Your task to perform on an android device: Add jbl charge 4 to the cart on walmart.com, then select checkout. Image 0: 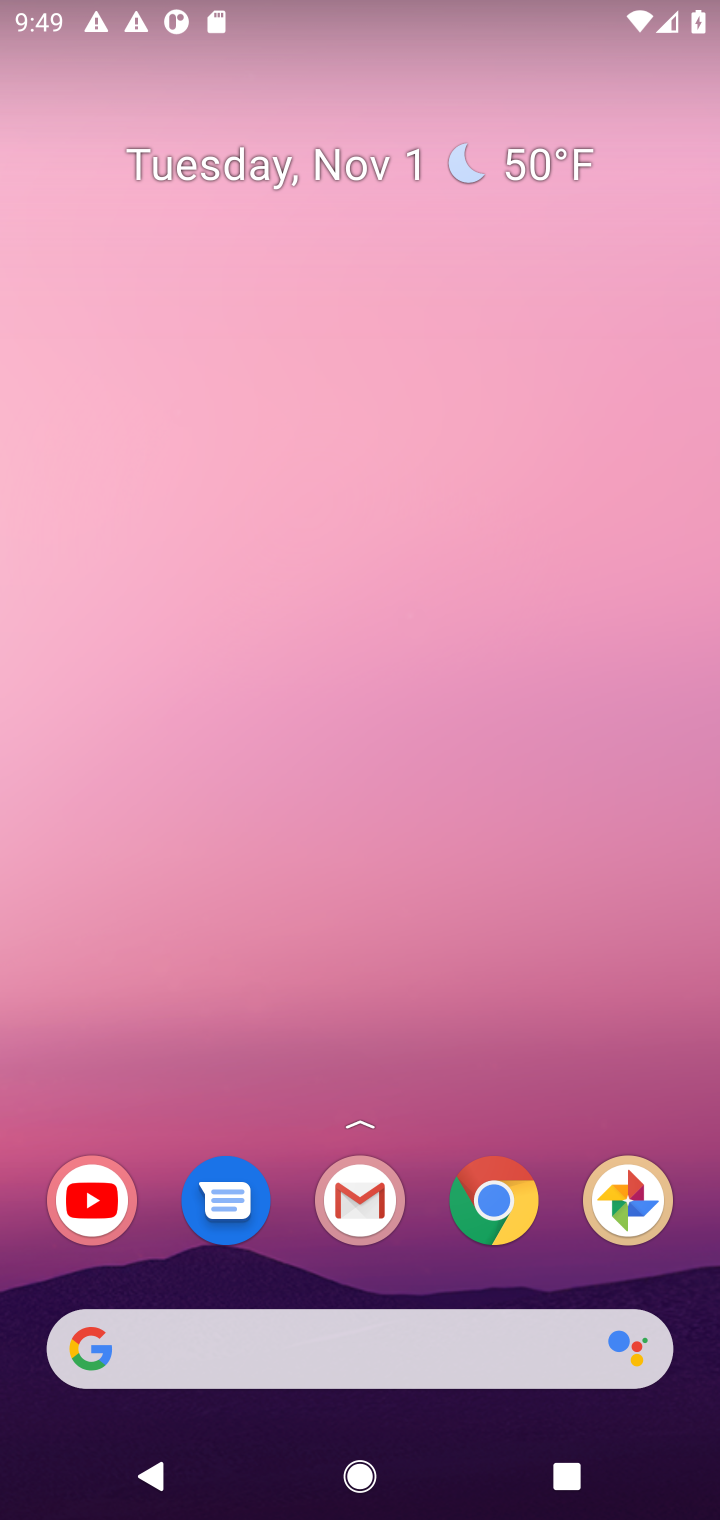
Step 0: click (408, 1329)
Your task to perform on an android device: Add jbl charge 4 to the cart on walmart.com, then select checkout. Image 1: 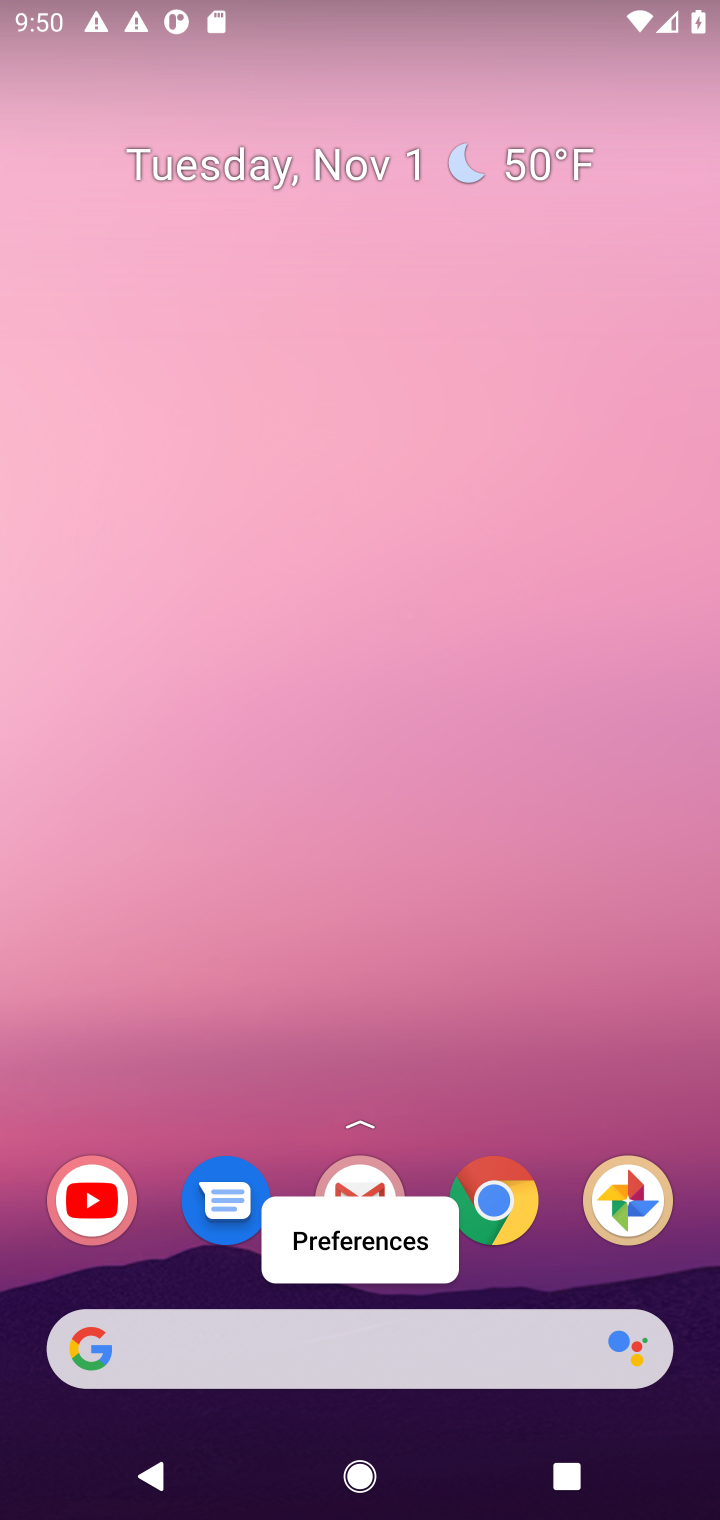
Step 1: click (418, 1363)
Your task to perform on an android device: Add jbl charge 4 to the cart on walmart.com, then select checkout. Image 2: 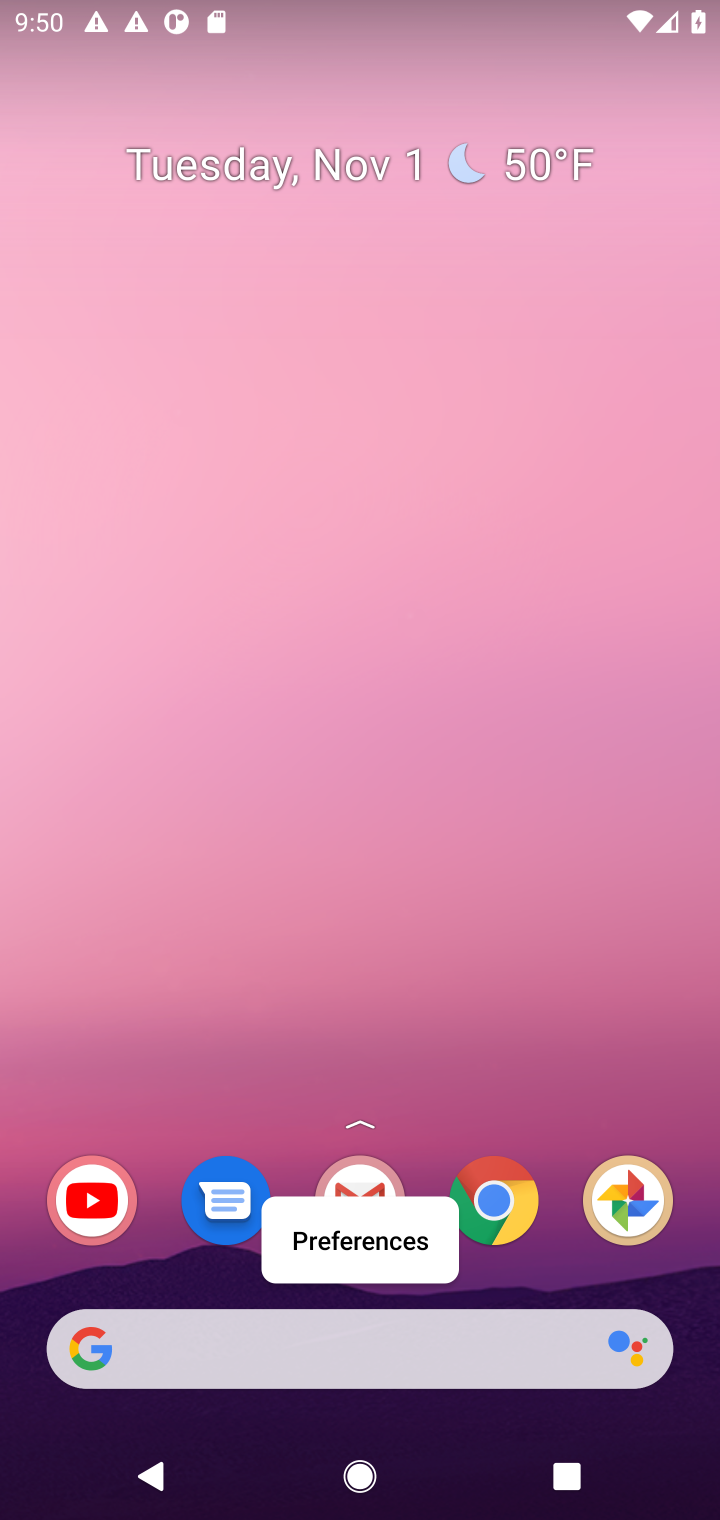
Step 2: click (396, 1354)
Your task to perform on an android device: Add jbl charge 4 to the cart on walmart.com, then select checkout. Image 3: 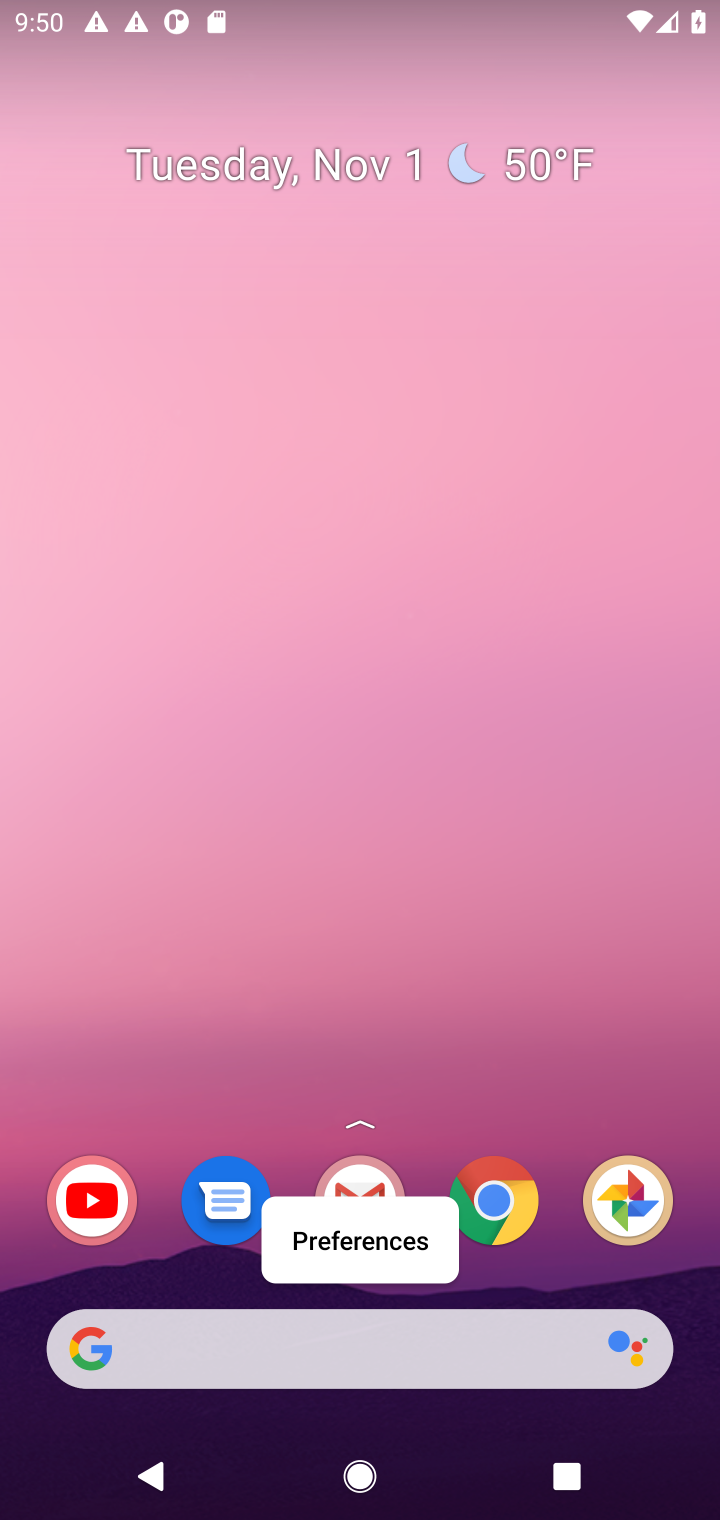
Step 3: click (284, 1343)
Your task to perform on an android device: Add jbl charge 4 to the cart on walmart.com, then select checkout. Image 4: 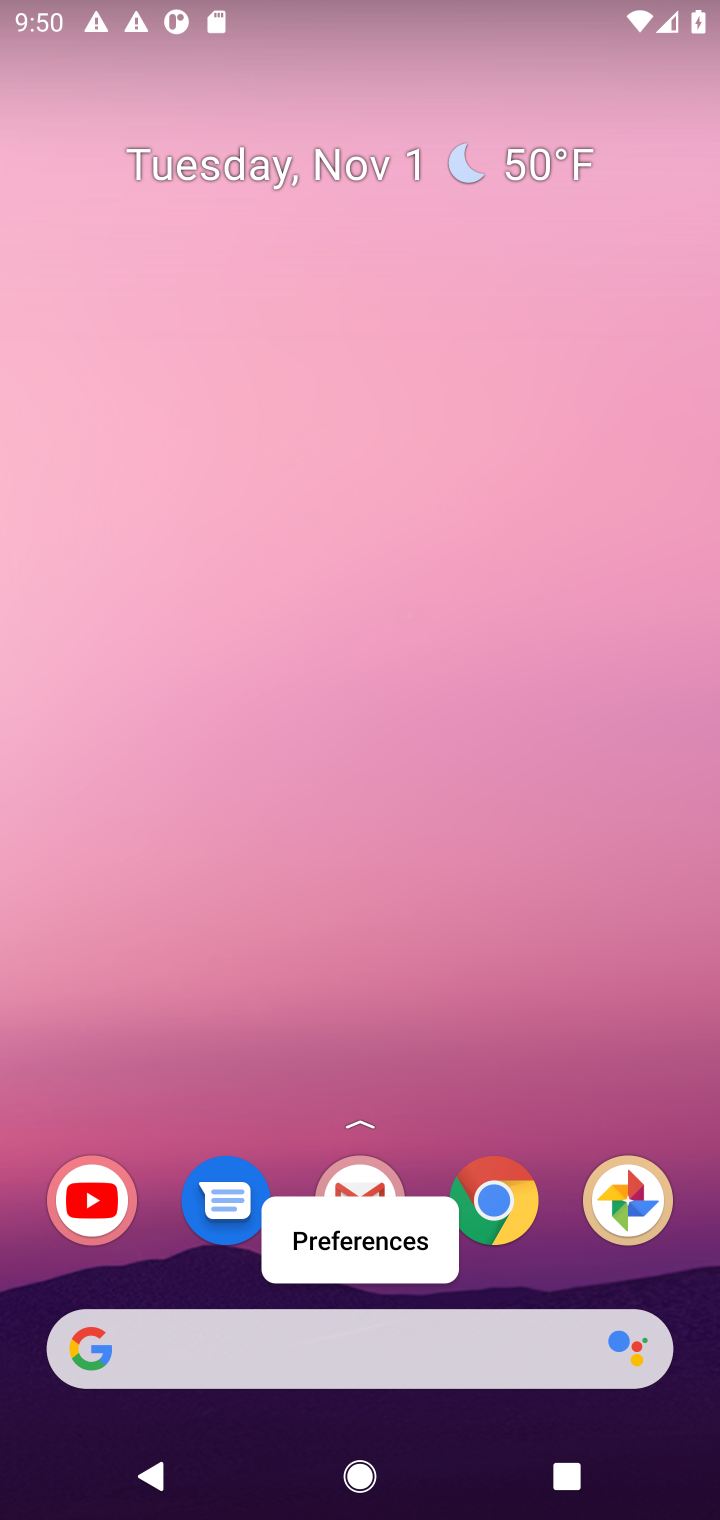
Step 4: click (276, 1333)
Your task to perform on an android device: Add jbl charge 4 to the cart on walmart.com, then select checkout. Image 5: 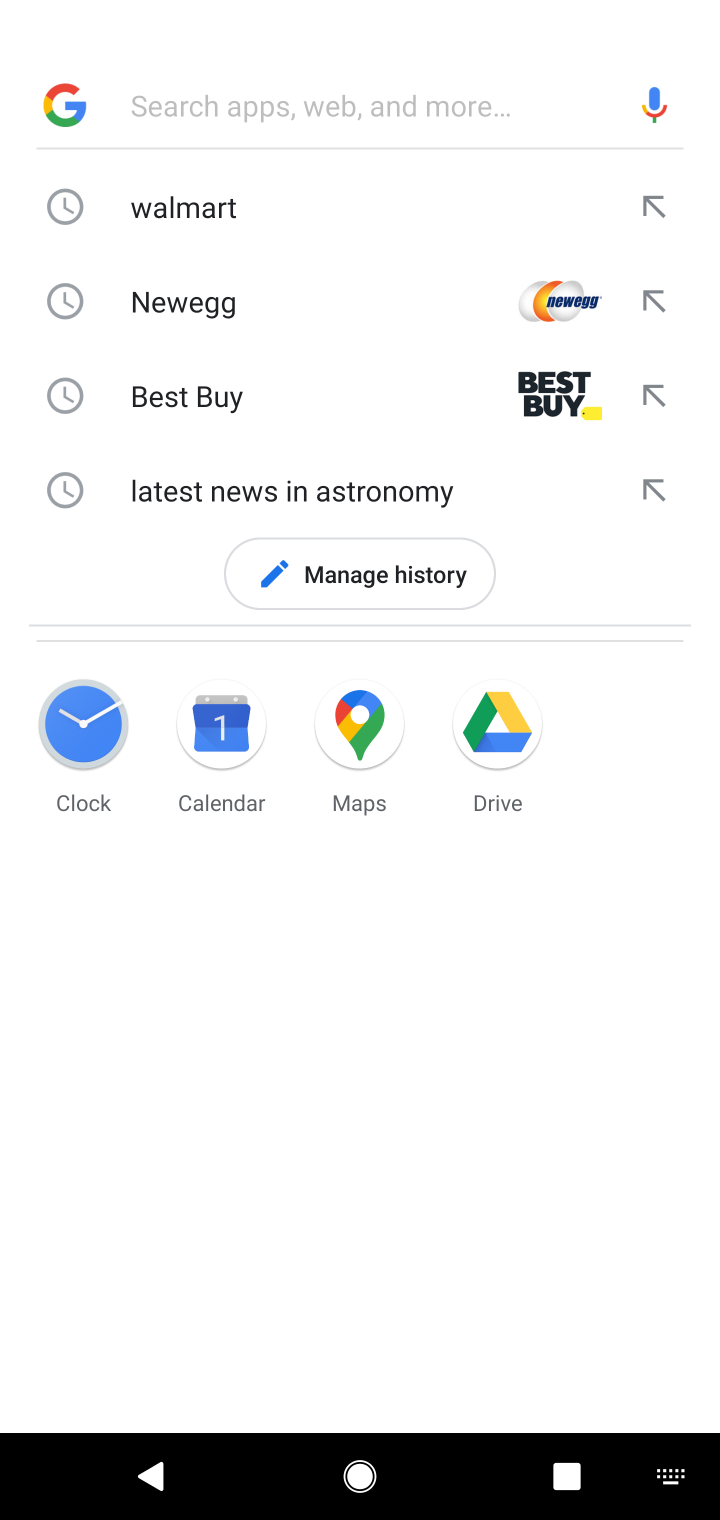
Step 5: type "walmart.com"
Your task to perform on an android device: Add jbl charge 4 to the cart on walmart.com, then select checkout. Image 6: 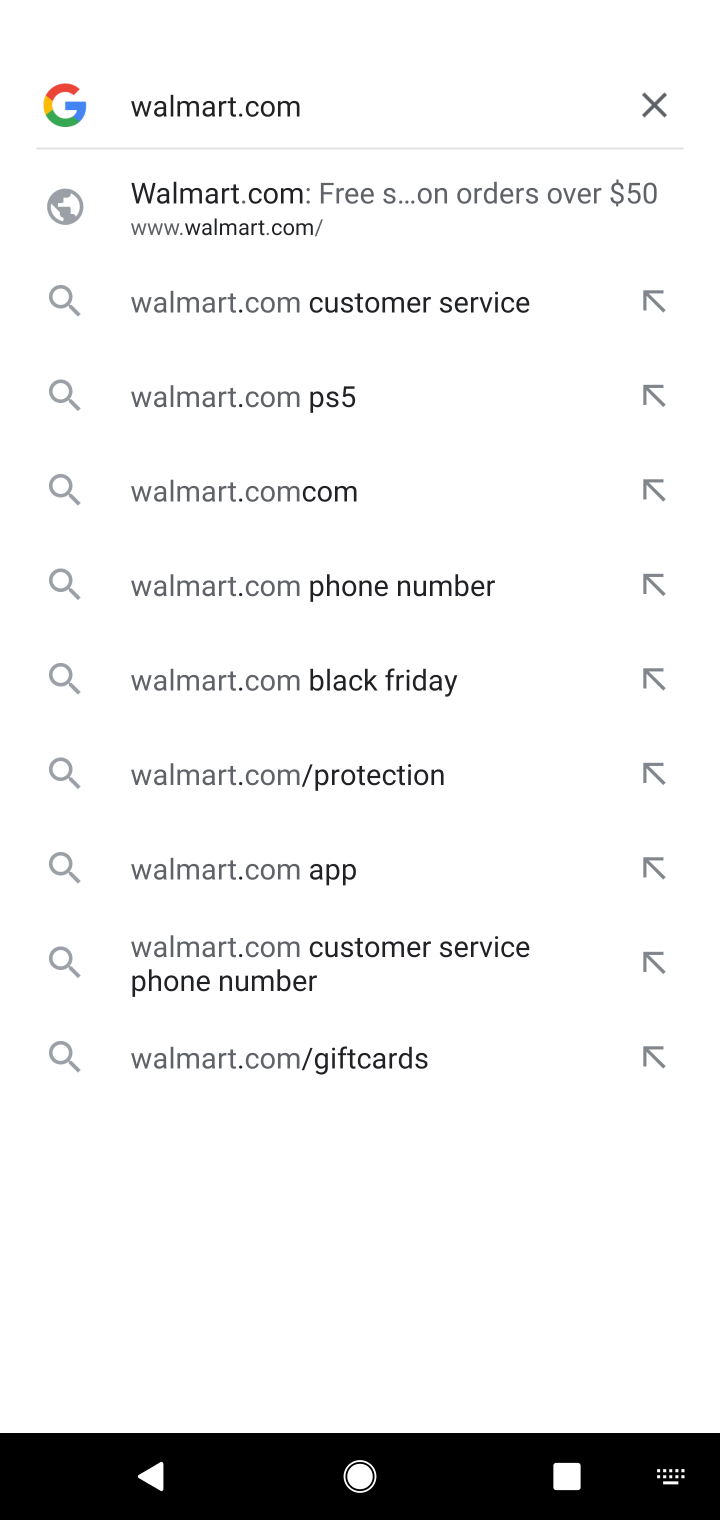
Step 6: click (199, 210)
Your task to perform on an android device: Add jbl charge 4 to the cart on walmart.com, then select checkout. Image 7: 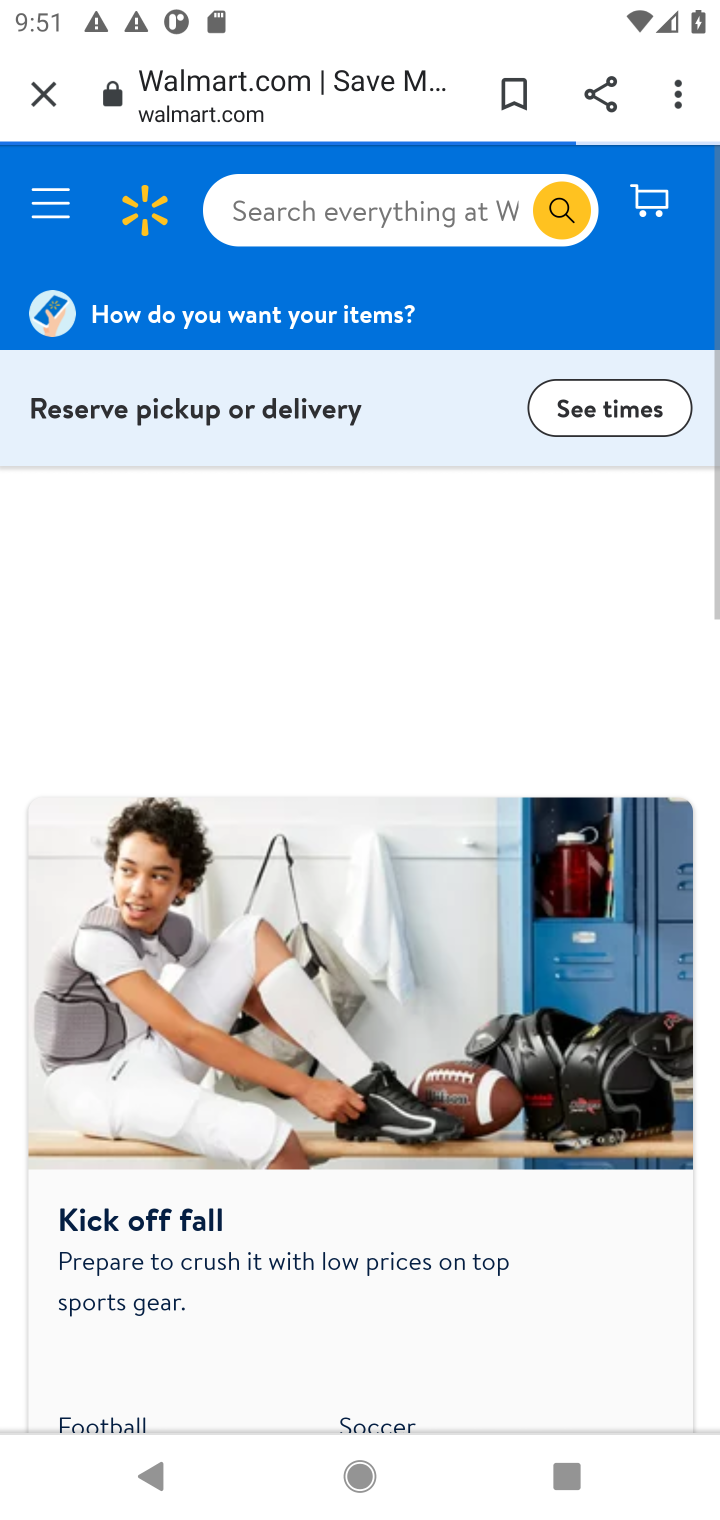
Step 7: click (279, 197)
Your task to perform on an android device: Add jbl charge 4 to the cart on walmart.com, then select checkout. Image 8: 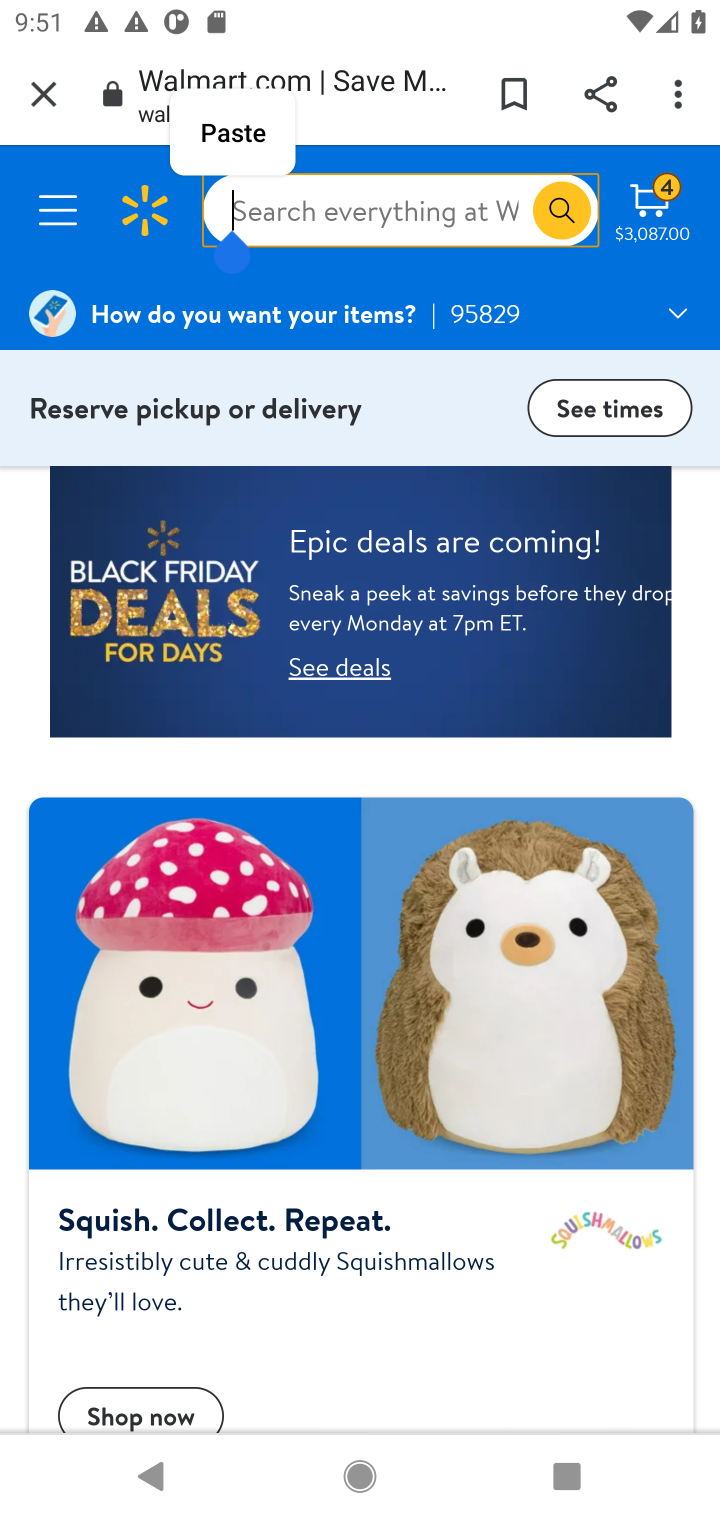
Step 8: type "jbl charge 4"
Your task to perform on an android device: Add jbl charge 4 to the cart on walmart.com, then select checkout. Image 9: 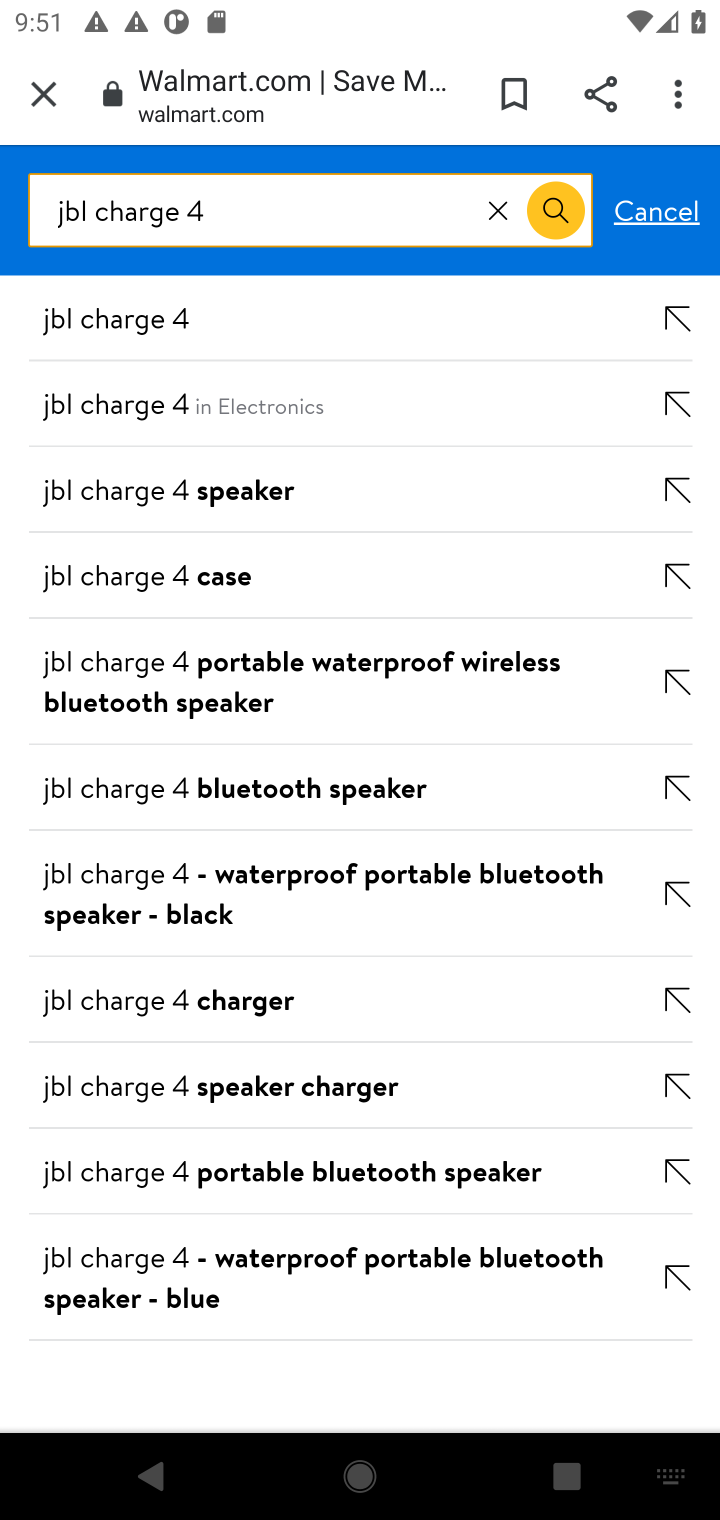
Step 9: click (172, 295)
Your task to perform on an android device: Add jbl charge 4 to the cart on walmart.com, then select checkout. Image 10: 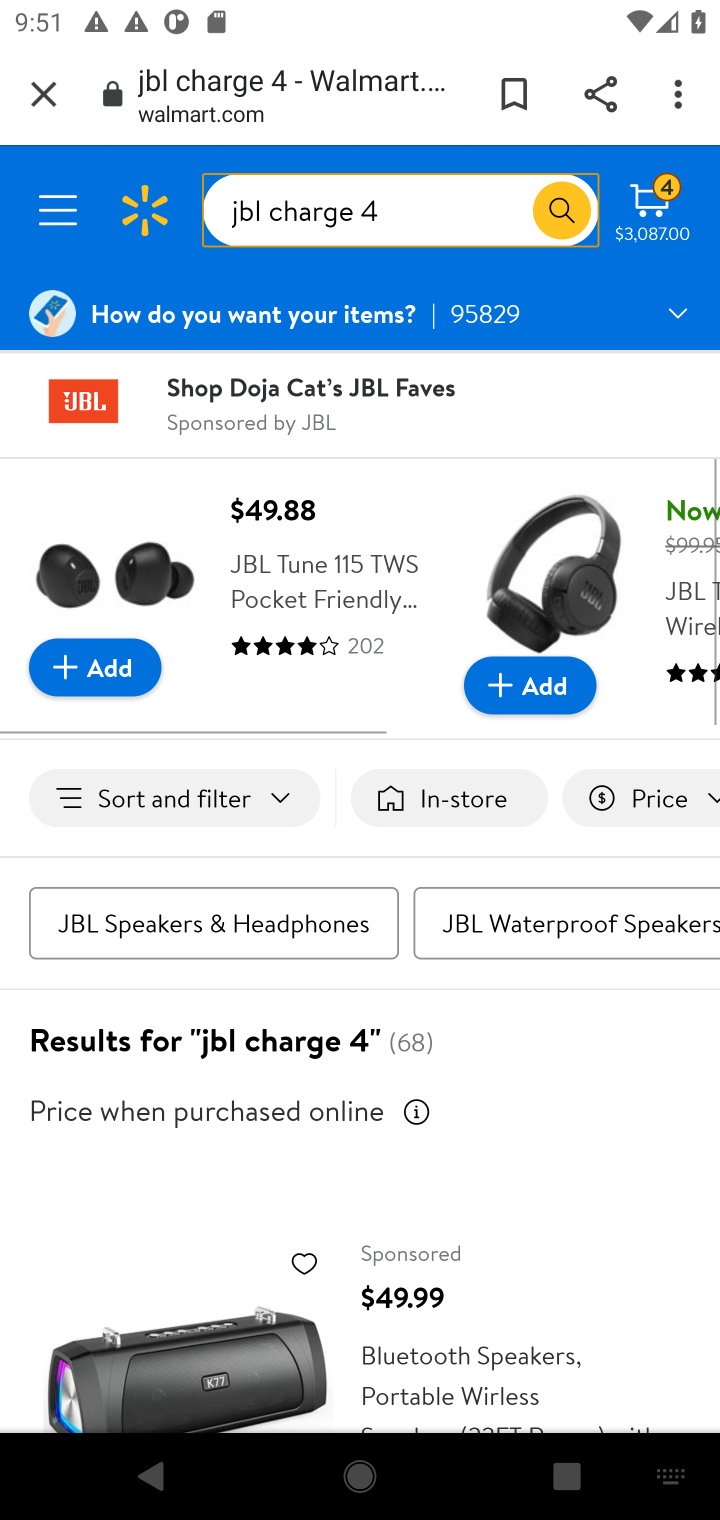
Step 10: drag from (542, 1145) to (533, 469)
Your task to perform on an android device: Add jbl charge 4 to the cart on walmart.com, then select checkout. Image 11: 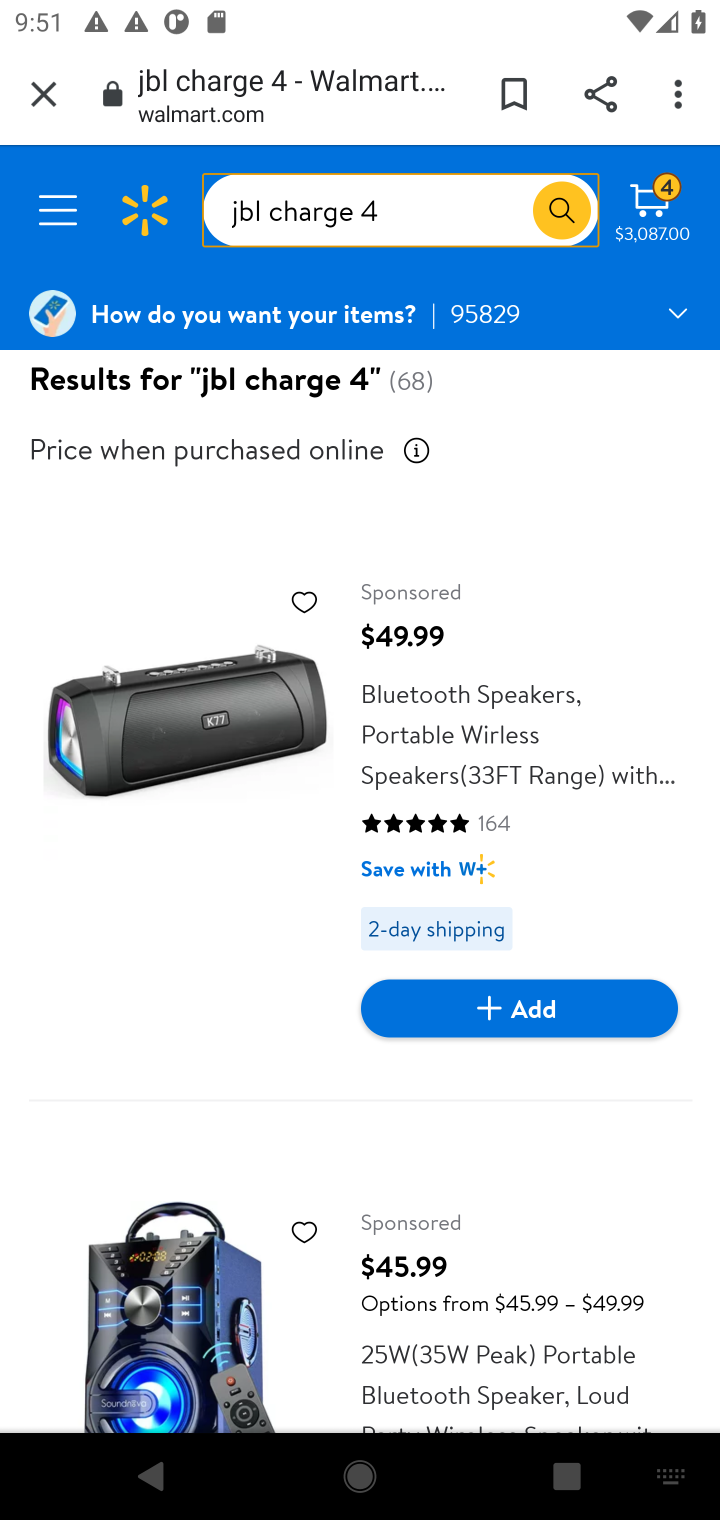
Step 11: click (530, 985)
Your task to perform on an android device: Add jbl charge 4 to the cart on walmart.com, then select checkout. Image 12: 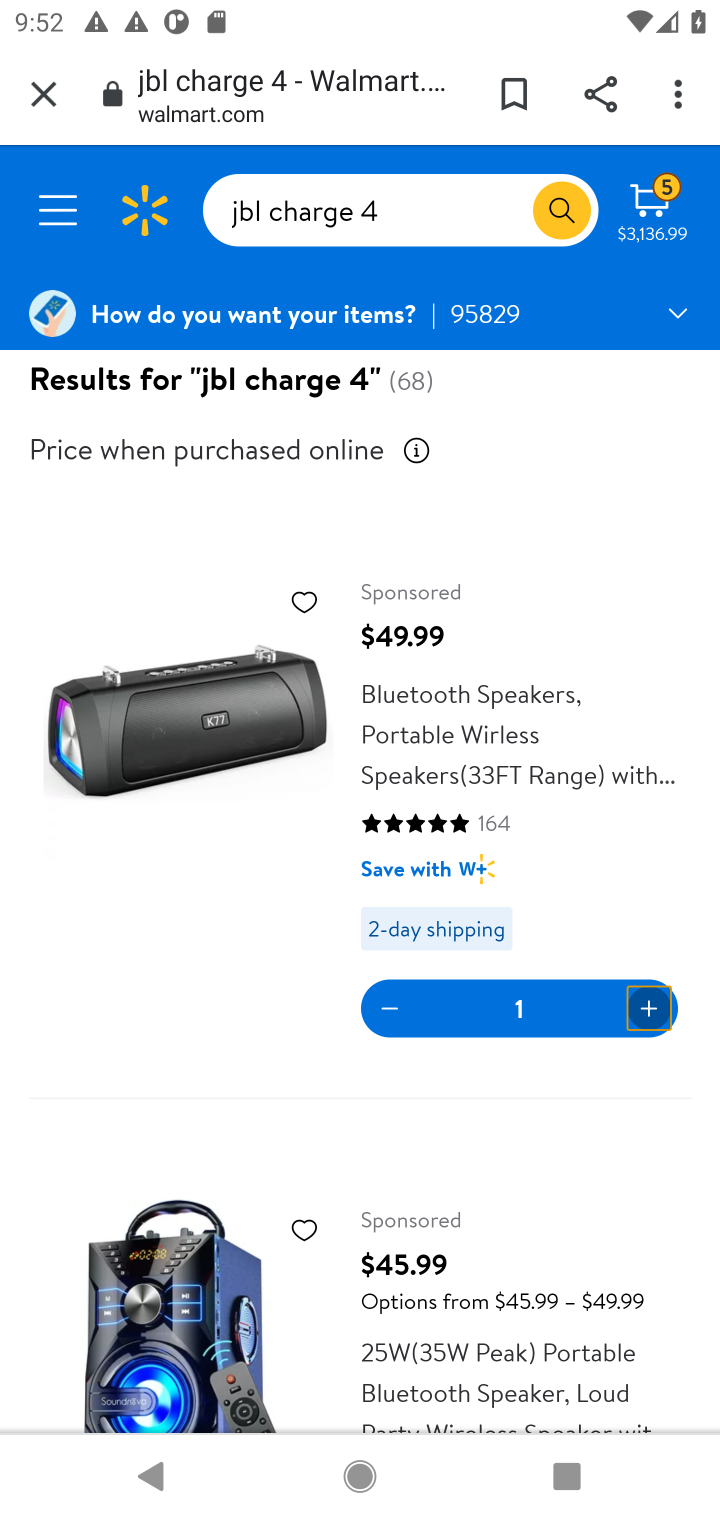
Step 12: task complete